Your task to perform on an android device: When is my next meeting? Image 0: 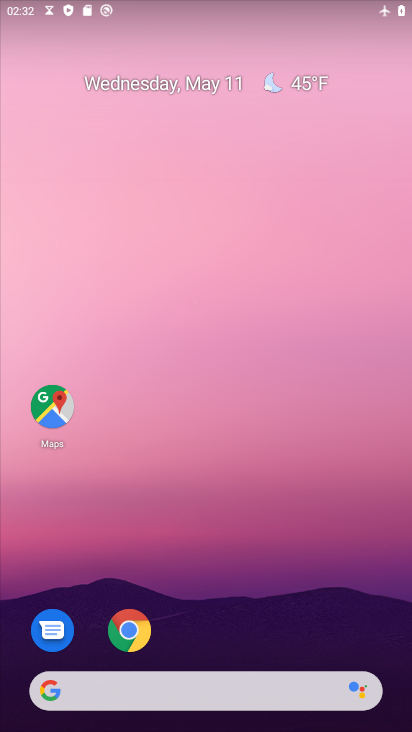
Step 0: drag from (214, 720) to (224, 13)
Your task to perform on an android device: When is my next meeting? Image 1: 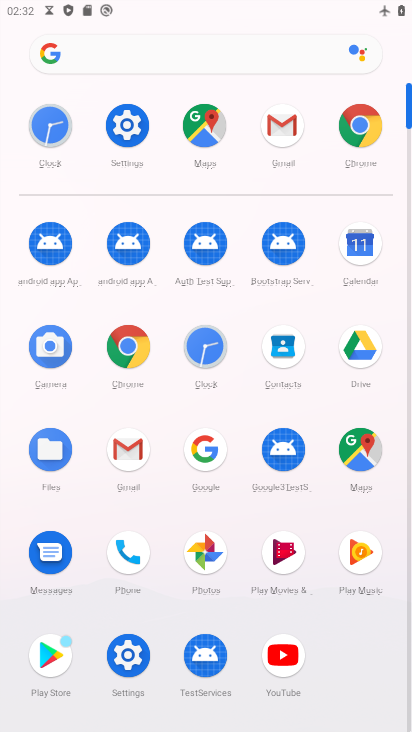
Step 1: click (364, 249)
Your task to perform on an android device: When is my next meeting? Image 2: 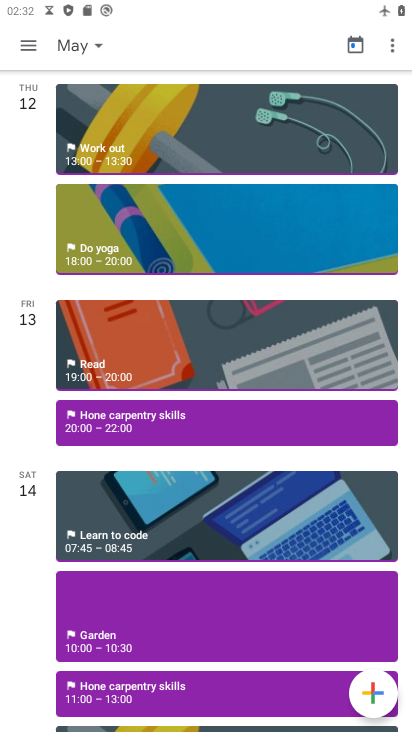
Step 2: click (68, 41)
Your task to perform on an android device: When is my next meeting? Image 3: 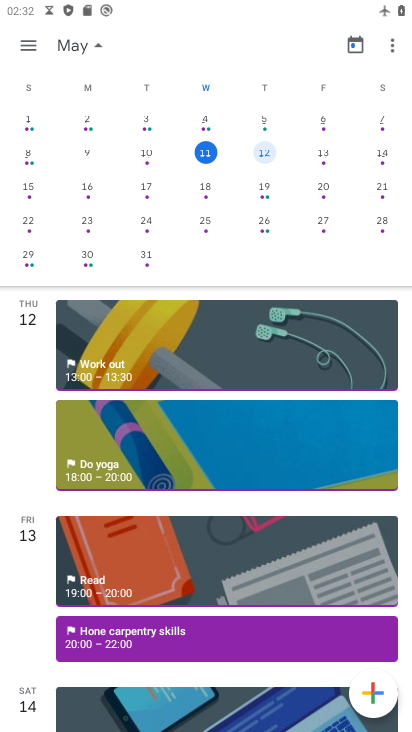
Step 3: click (265, 149)
Your task to perform on an android device: When is my next meeting? Image 4: 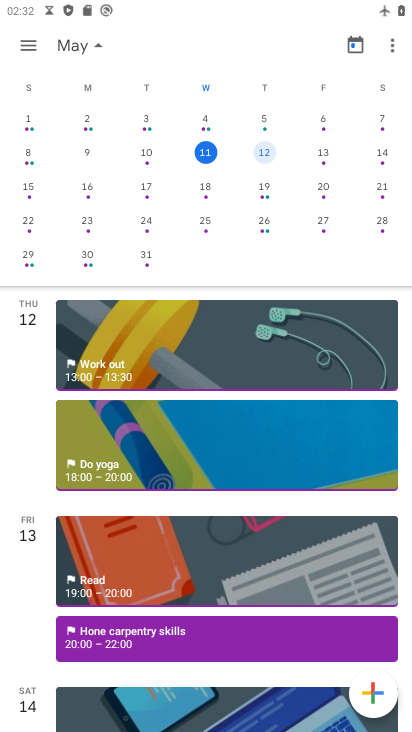
Step 4: click (265, 149)
Your task to perform on an android device: When is my next meeting? Image 5: 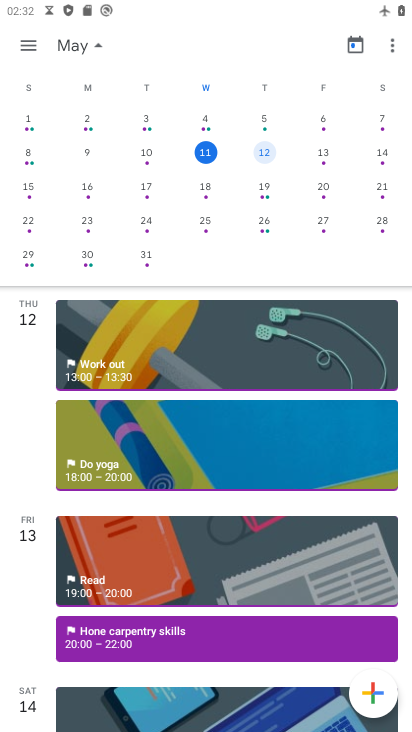
Step 5: click (96, 45)
Your task to perform on an android device: When is my next meeting? Image 6: 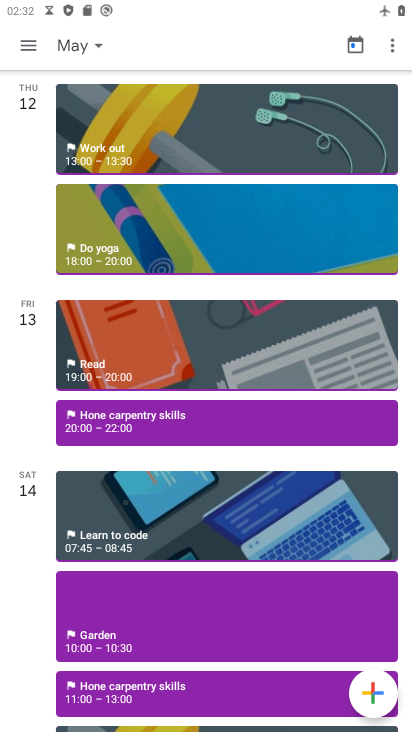
Step 6: task complete